Your task to perform on an android device: Open Youtube and go to "Your channel" Image 0: 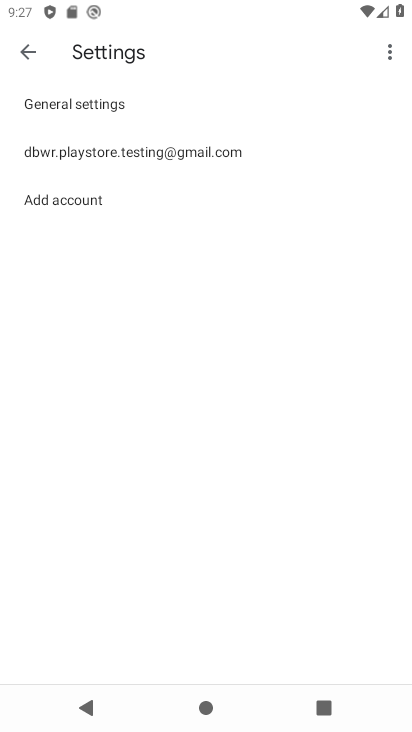
Step 0: press home button
Your task to perform on an android device: Open Youtube and go to "Your channel" Image 1: 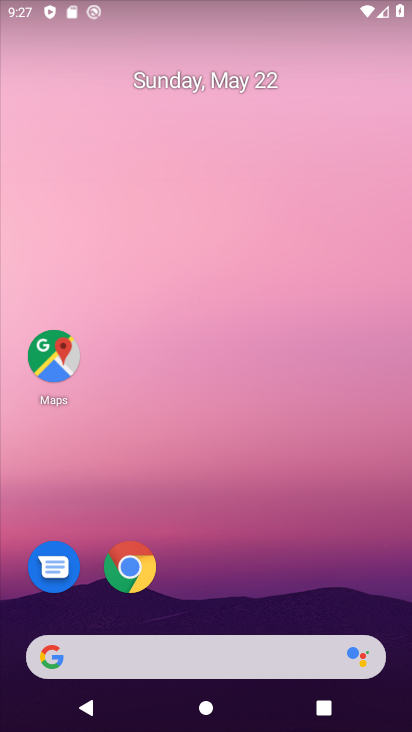
Step 1: drag from (274, 613) to (248, 298)
Your task to perform on an android device: Open Youtube and go to "Your channel" Image 2: 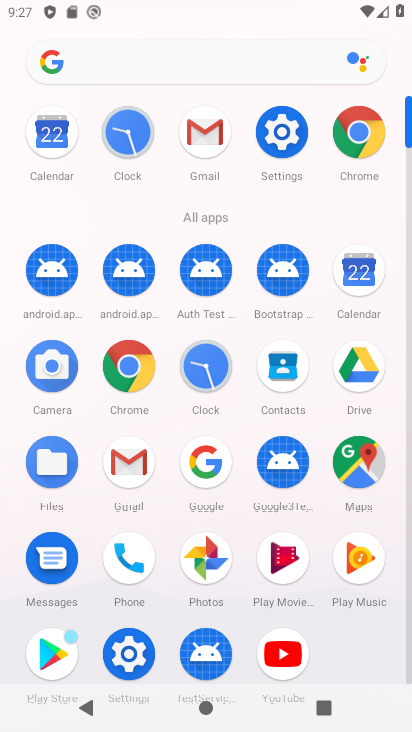
Step 2: click (291, 654)
Your task to perform on an android device: Open Youtube and go to "Your channel" Image 3: 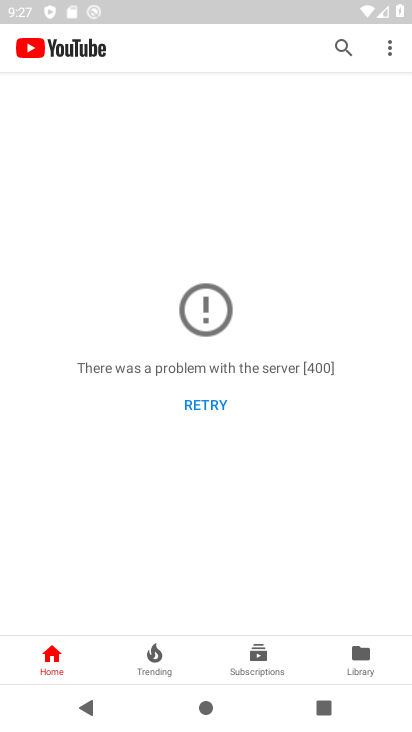
Step 3: click (348, 47)
Your task to perform on an android device: Open Youtube and go to "Your channel" Image 4: 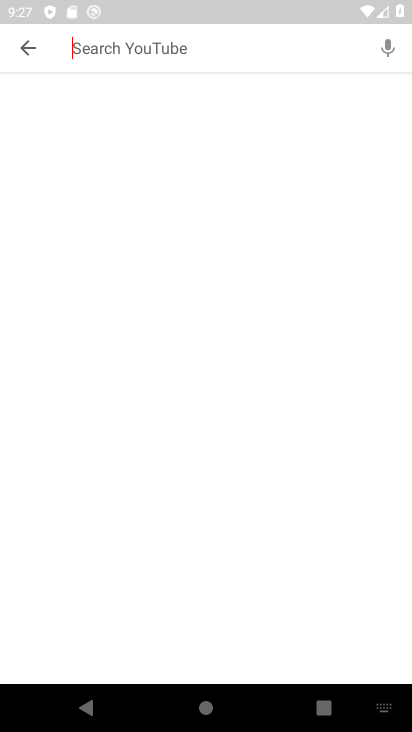
Step 4: click (244, 36)
Your task to perform on an android device: Open Youtube and go to "Your channel" Image 5: 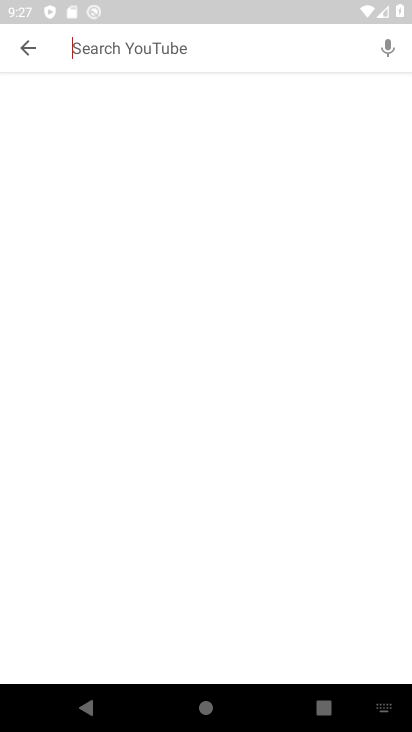
Step 5: click (176, 45)
Your task to perform on an android device: Open Youtube and go to "Your channel" Image 6: 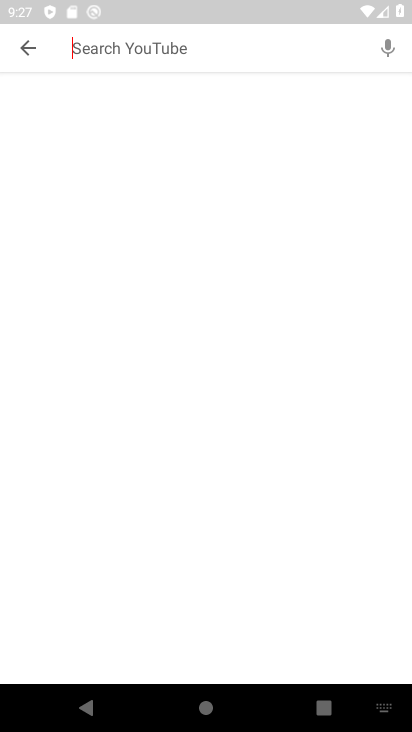
Step 6: type "india"
Your task to perform on an android device: Open Youtube and go to "Your channel" Image 7: 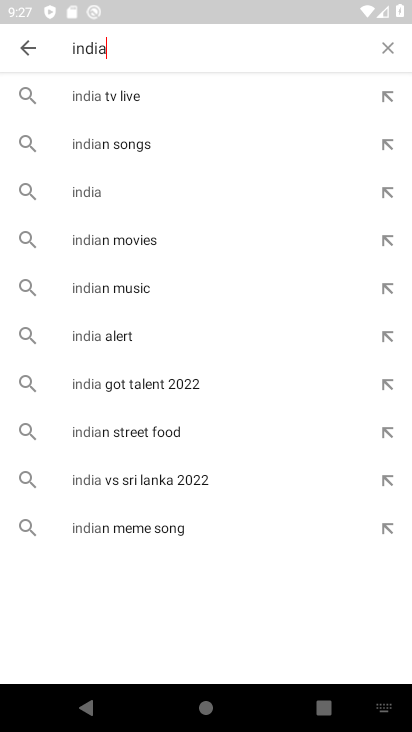
Step 7: click (118, 96)
Your task to perform on an android device: Open Youtube and go to "Your channel" Image 8: 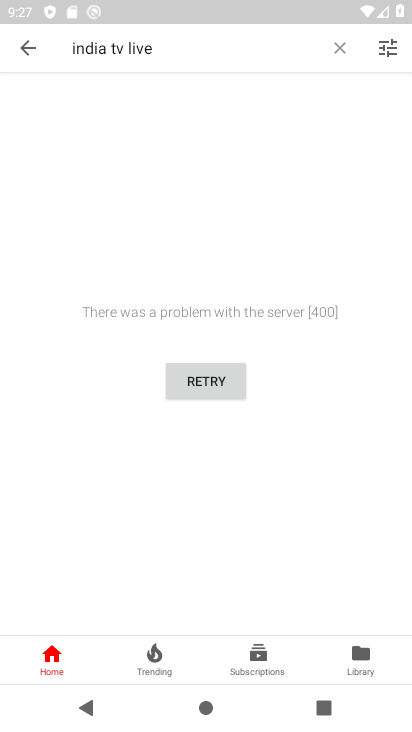
Step 8: task complete